Your task to perform on an android device: turn pop-ups off in chrome Image 0: 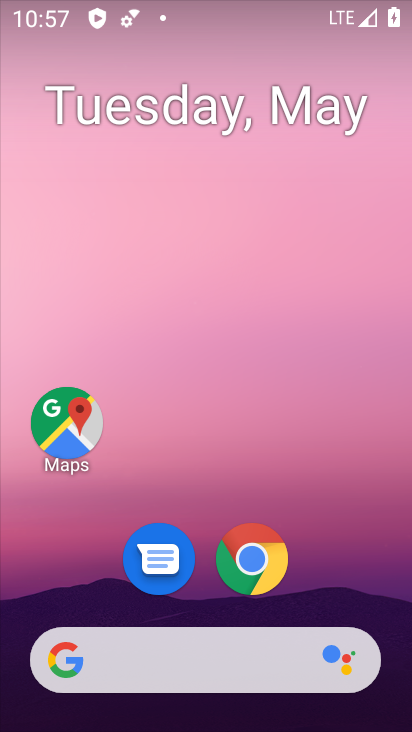
Step 0: drag from (354, 567) to (338, 163)
Your task to perform on an android device: turn pop-ups off in chrome Image 1: 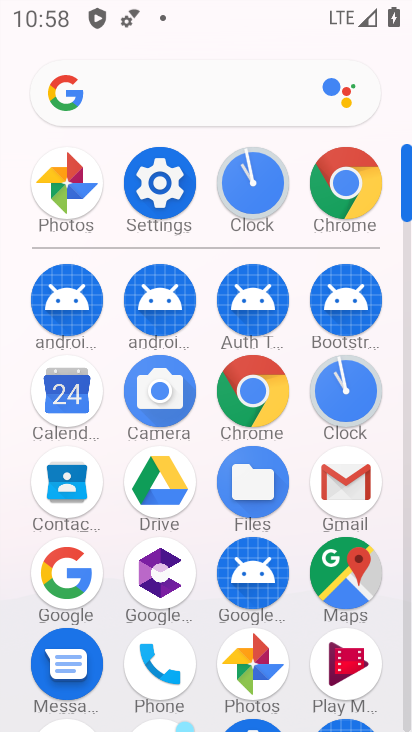
Step 1: click (365, 219)
Your task to perform on an android device: turn pop-ups off in chrome Image 2: 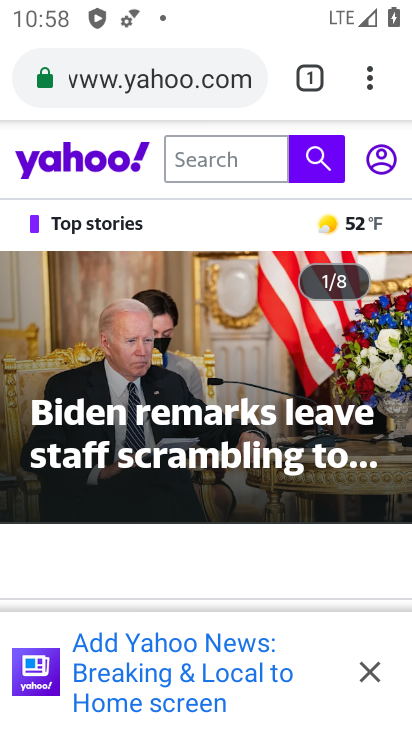
Step 2: drag from (367, 97) to (151, 627)
Your task to perform on an android device: turn pop-ups off in chrome Image 3: 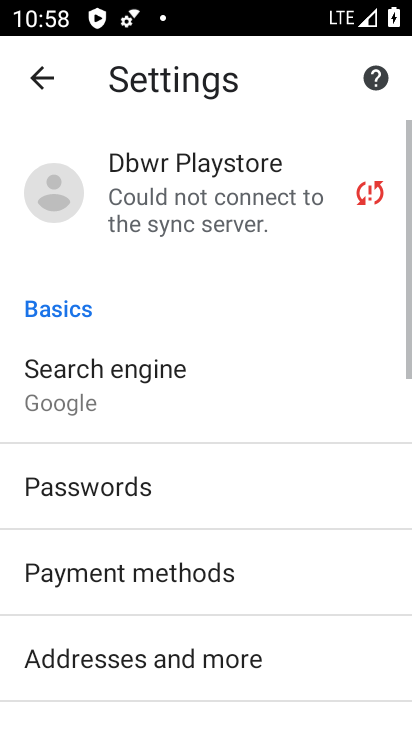
Step 3: drag from (309, 685) to (314, 352)
Your task to perform on an android device: turn pop-ups off in chrome Image 4: 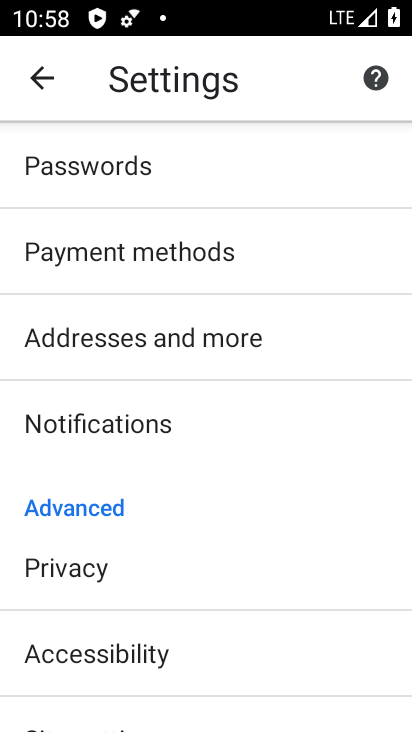
Step 4: drag from (231, 667) to (266, 258)
Your task to perform on an android device: turn pop-ups off in chrome Image 5: 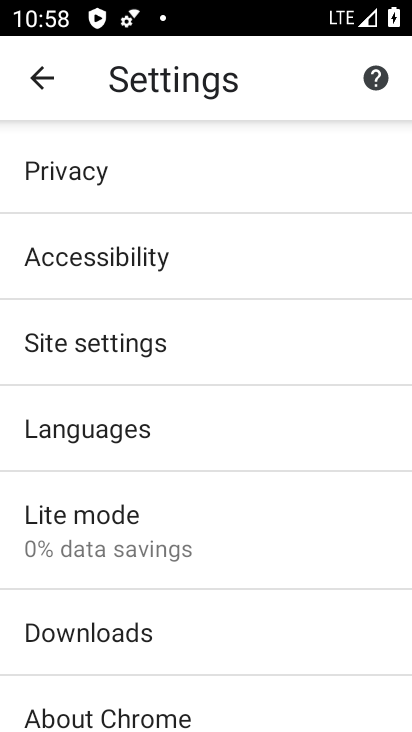
Step 5: drag from (172, 678) to (272, 383)
Your task to perform on an android device: turn pop-ups off in chrome Image 6: 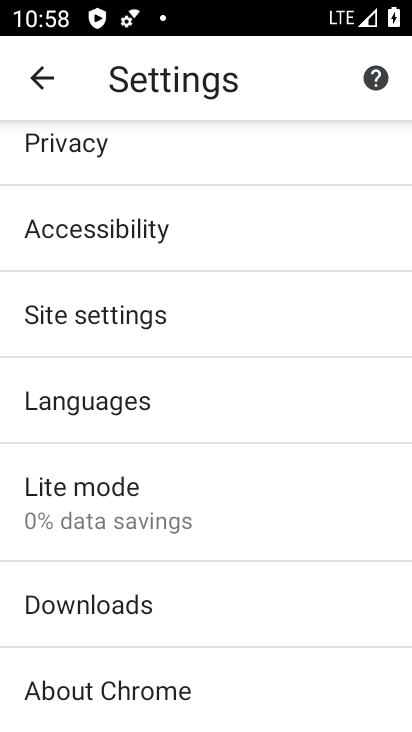
Step 6: click (221, 329)
Your task to perform on an android device: turn pop-ups off in chrome Image 7: 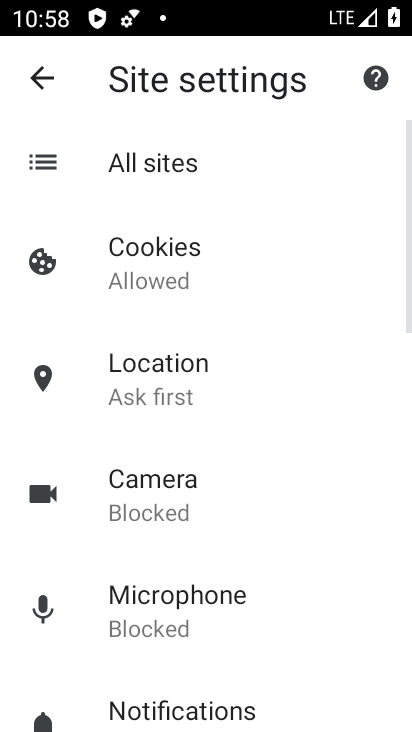
Step 7: drag from (274, 652) to (272, 290)
Your task to perform on an android device: turn pop-ups off in chrome Image 8: 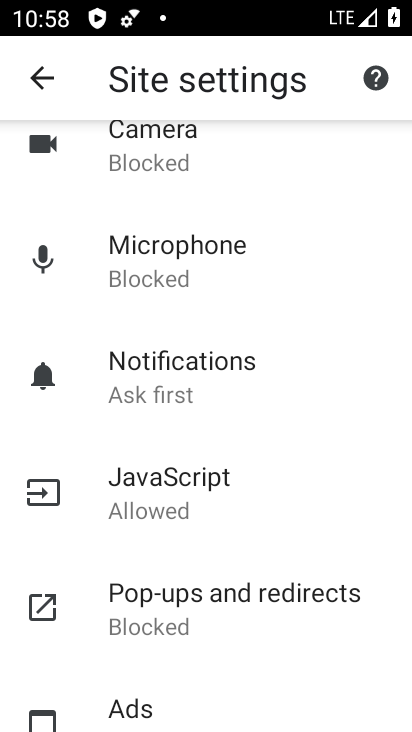
Step 8: click (262, 603)
Your task to perform on an android device: turn pop-ups off in chrome Image 9: 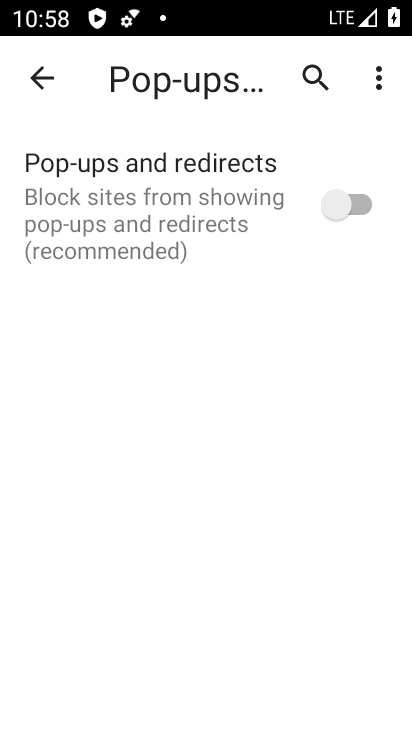
Step 9: task complete